Your task to perform on an android device: Go to sound settings Image 0: 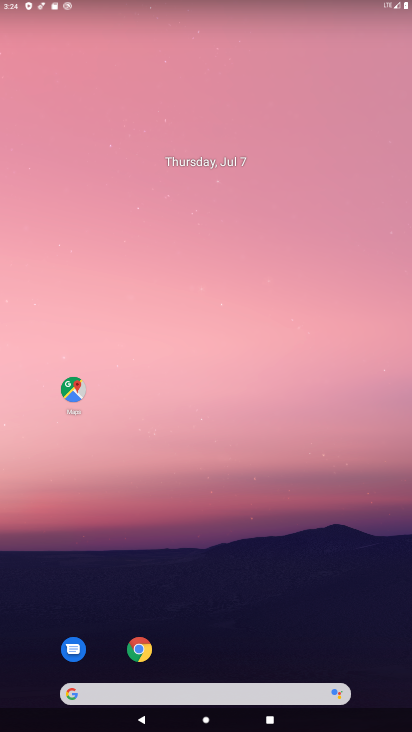
Step 0: drag from (244, 611) to (314, 219)
Your task to perform on an android device: Go to sound settings Image 1: 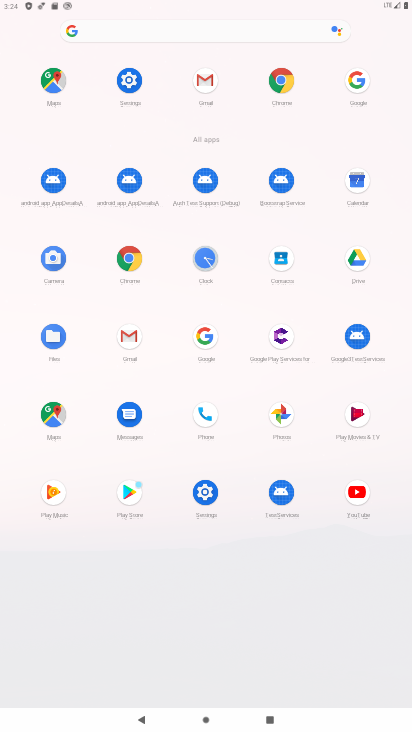
Step 1: click (210, 502)
Your task to perform on an android device: Go to sound settings Image 2: 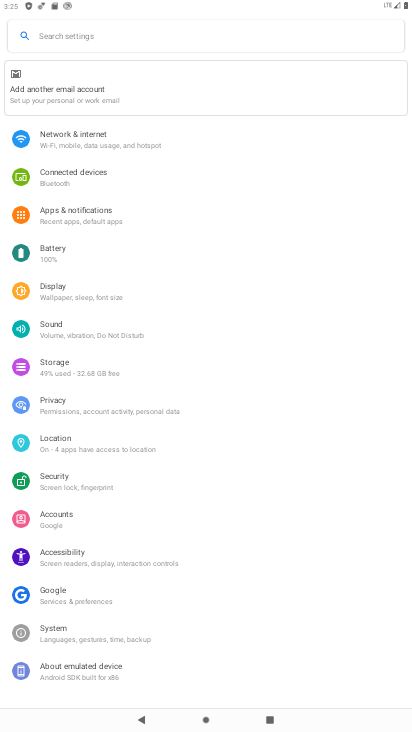
Step 2: click (118, 333)
Your task to perform on an android device: Go to sound settings Image 3: 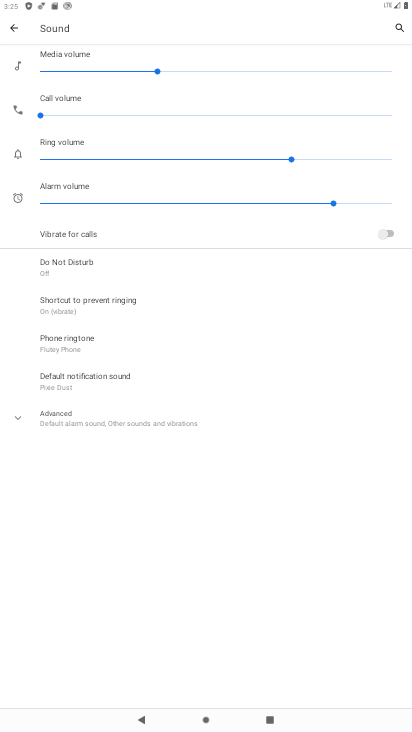
Step 3: task complete